Your task to perform on an android device: add a contact in the contacts app Image 0: 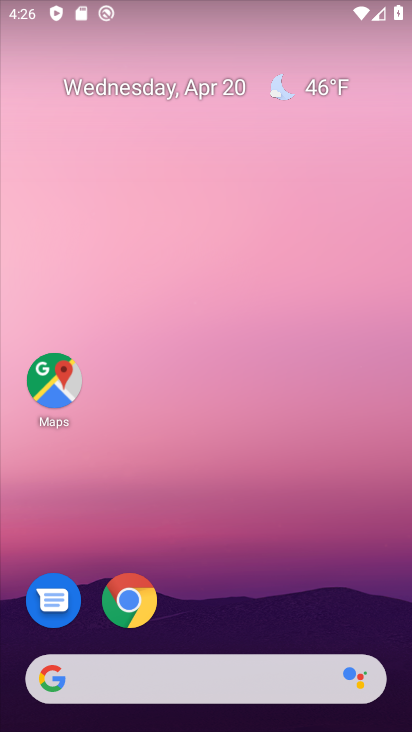
Step 0: drag from (228, 634) to (204, 131)
Your task to perform on an android device: add a contact in the contacts app Image 1: 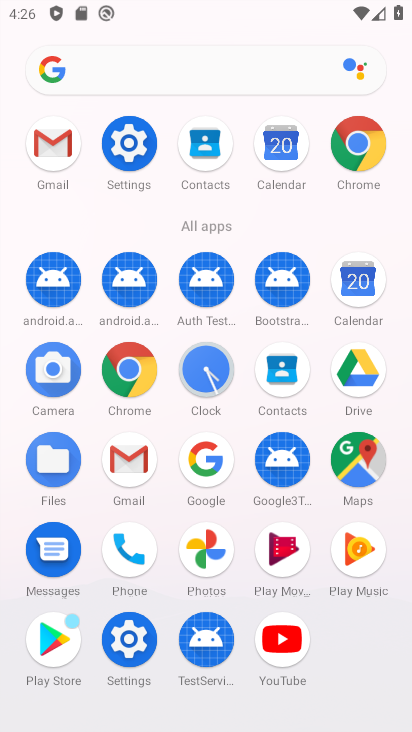
Step 1: click (280, 369)
Your task to perform on an android device: add a contact in the contacts app Image 2: 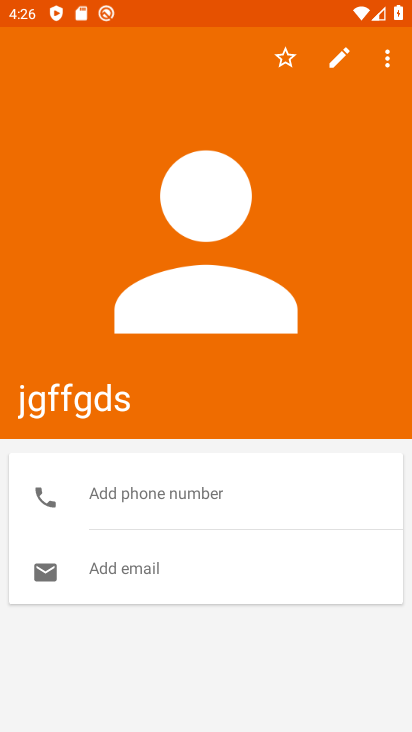
Step 2: press back button
Your task to perform on an android device: add a contact in the contacts app Image 3: 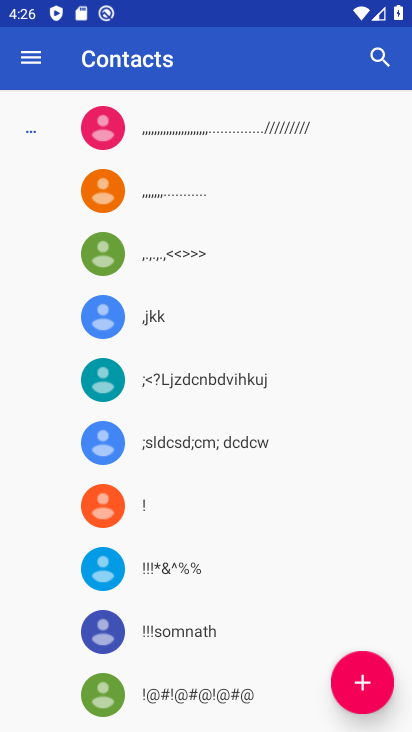
Step 3: click (361, 674)
Your task to perform on an android device: add a contact in the contacts app Image 4: 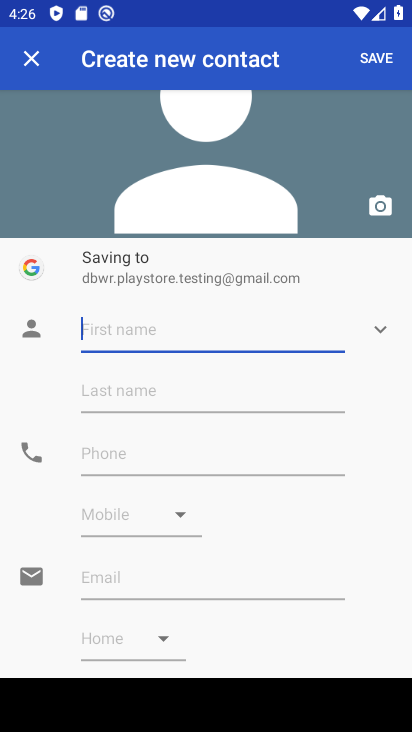
Step 4: type "mnbvcxz"
Your task to perform on an android device: add a contact in the contacts app Image 5: 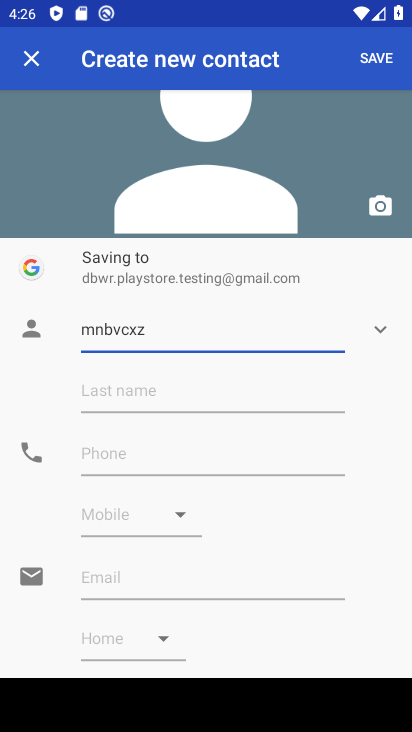
Step 5: click (368, 67)
Your task to perform on an android device: add a contact in the contacts app Image 6: 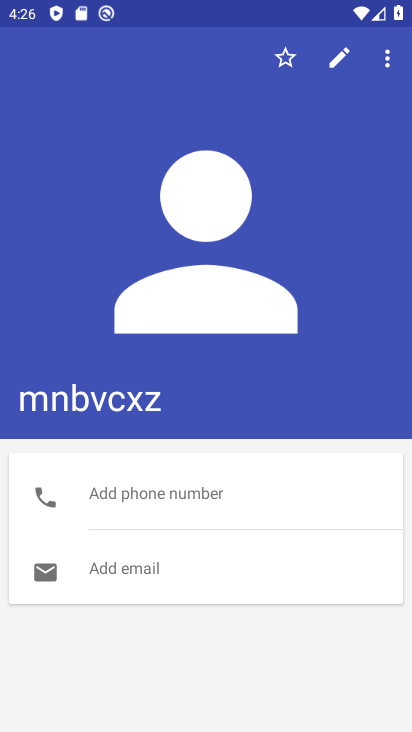
Step 6: task complete